Your task to perform on an android device: Open Amazon Image 0: 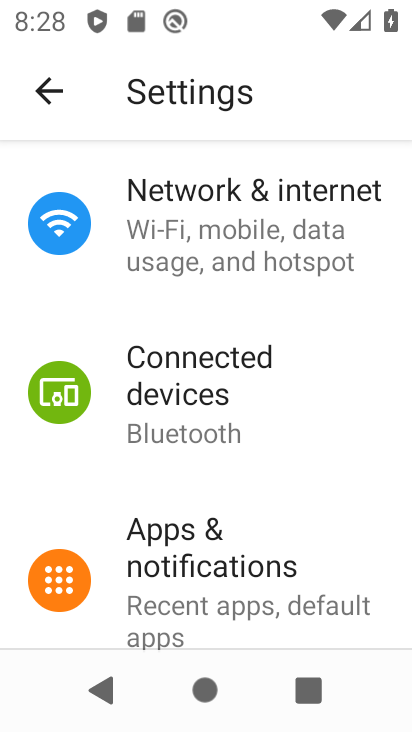
Step 0: press home button
Your task to perform on an android device: Open Amazon Image 1: 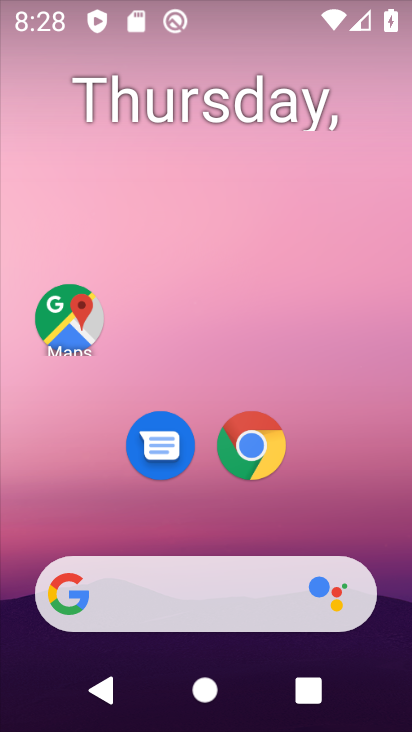
Step 1: click (237, 438)
Your task to perform on an android device: Open Amazon Image 2: 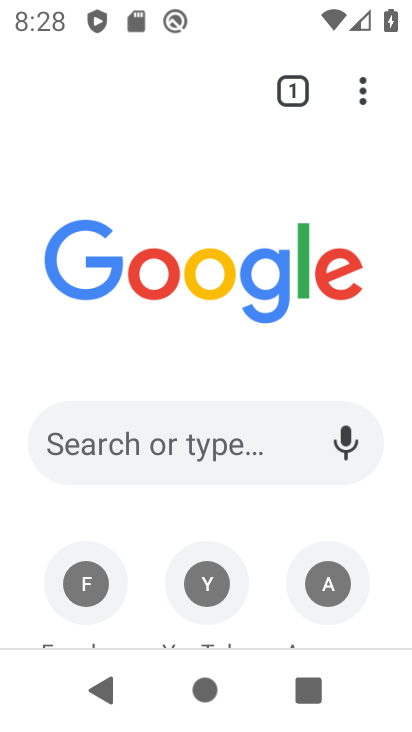
Step 2: drag from (168, 577) to (221, 161)
Your task to perform on an android device: Open Amazon Image 3: 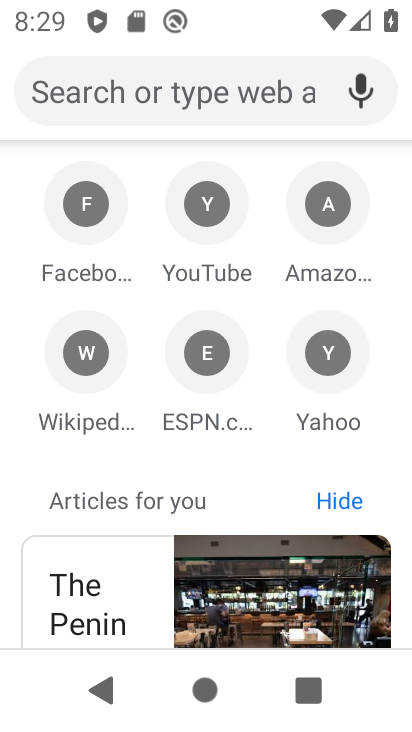
Step 3: click (330, 196)
Your task to perform on an android device: Open Amazon Image 4: 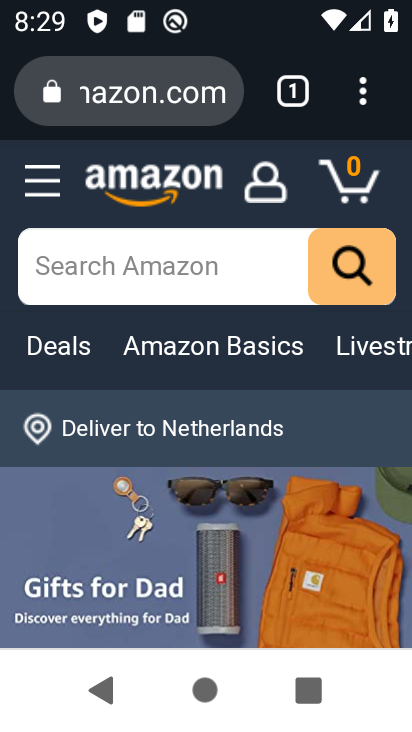
Step 4: task complete